Your task to perform on an android device: find which apps use the phone's location Image 0: 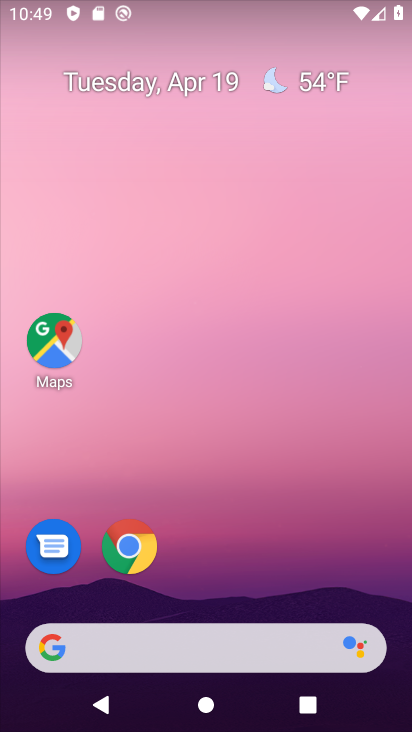
Step 0: drag from (213, 355) to (78, 2)
Your task to perform on an android device: find which apps use the phone's location Image 1: 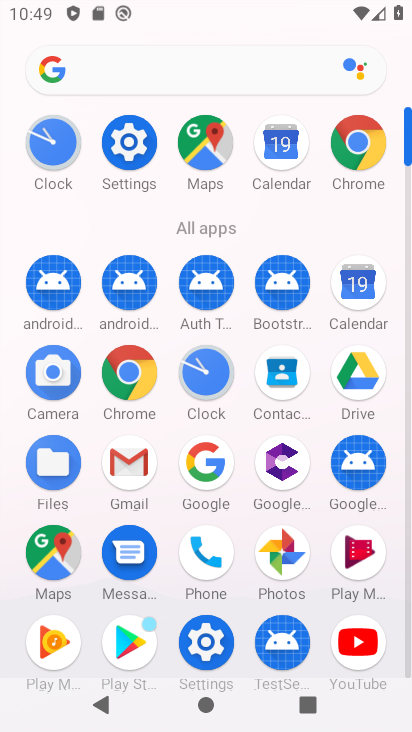
Step 1: click (110, 139)
Your task to perform on an android device: find which apps use the phone's location Image 2: 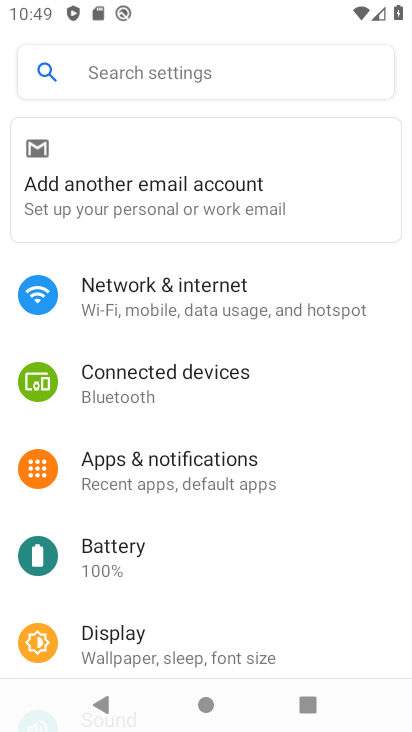
Step 2: drag from (308, 404) to (350, 65)
Your task to perform on an android device: find which apps use the phone's location Image 3: 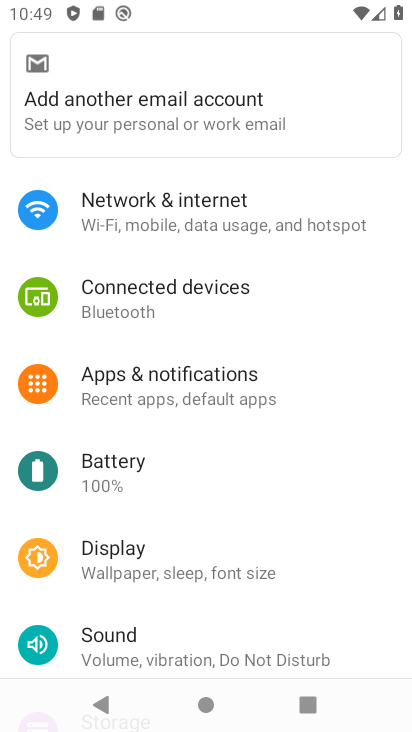
Step 3: drag from (313, 561) to (292, 13)
Your task to perform on an android device: find which apps use the phone's location Image 4: 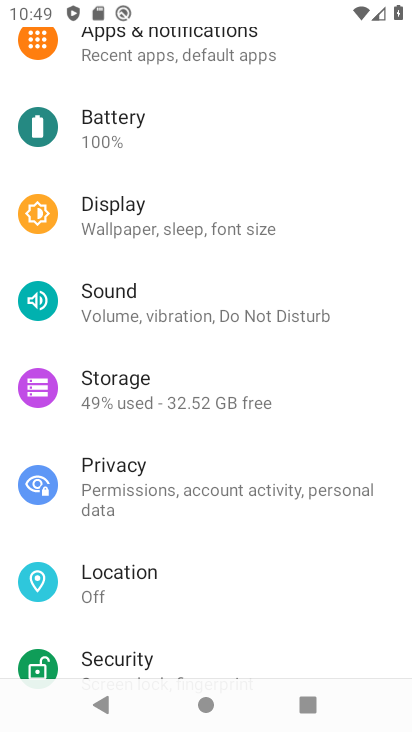
Step 4: click (212, 580)
Your task to perform on an android device: find which apps use the phone's location Image 5: 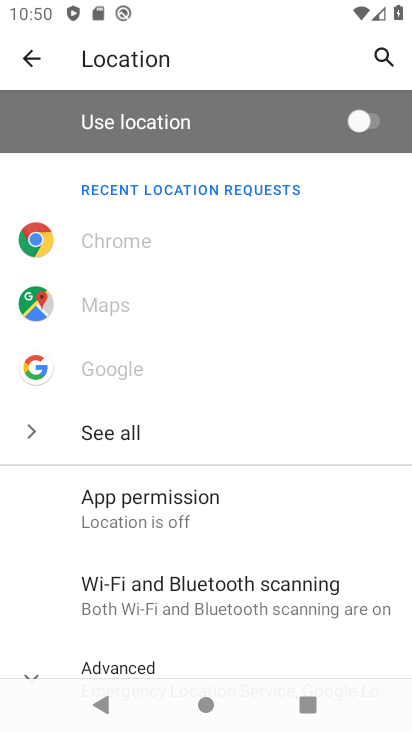
Step 5: click (222, 505)
Your task to perform on an android device: find which apps use the phone's location Image 6: 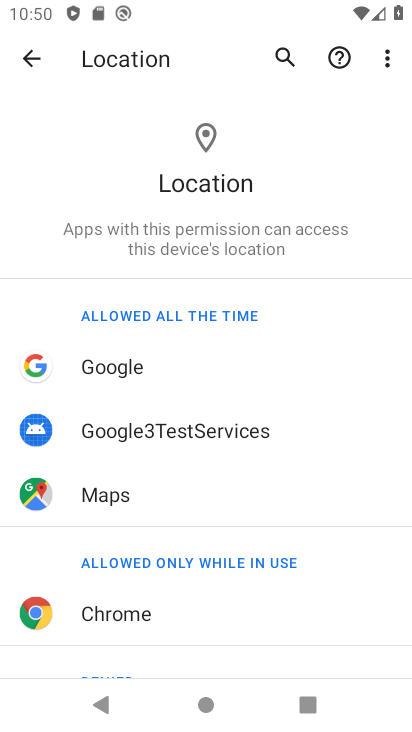
Step 6: drag from (319, 620) to (292, 109)
Your task to perform on an android device: find which apps use the phone's location Image 7: 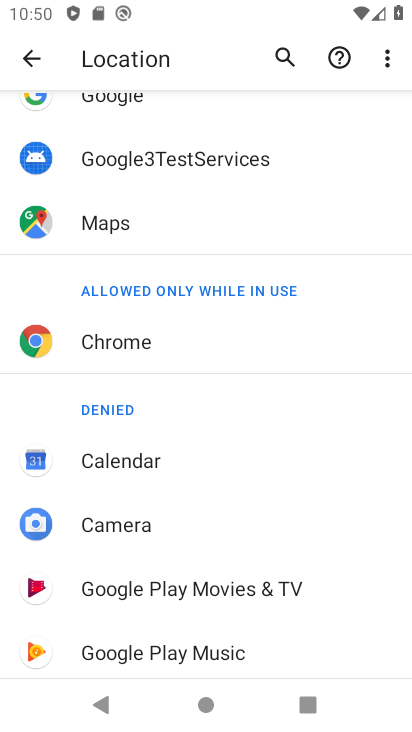
Step 7: click (278, 518)
Your task to perform on an android device: find which apps use the phone's location Image 8: 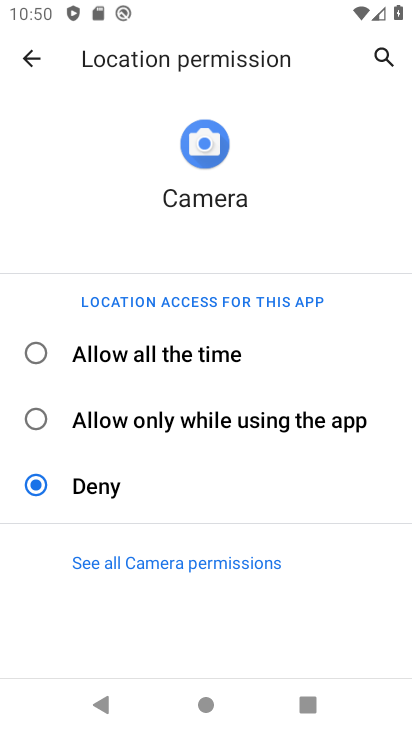
Step 8: task complete